Your task to perform on an android device: Go to battery settings Image 0: 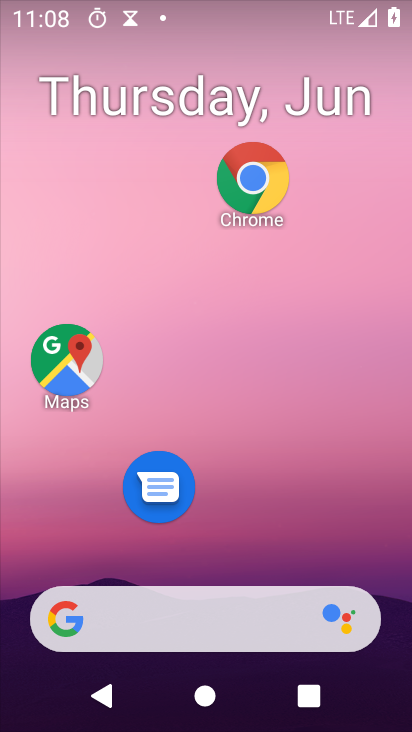
Step 0: drag from (232, 726) to (204, 137)
Your task to perform on an android device: Go to battery settings Image 1: 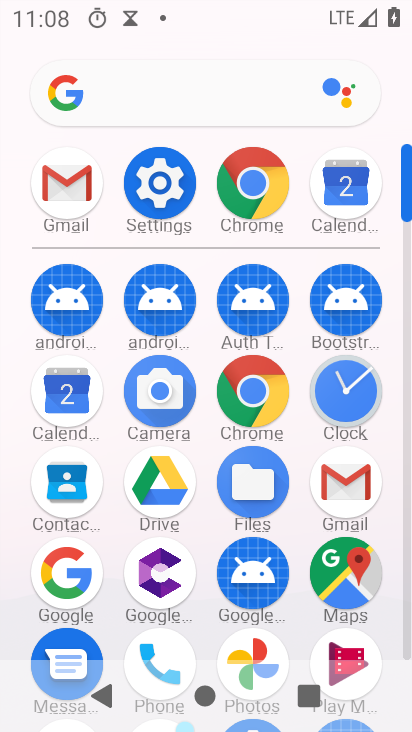
Step 1: click (159, 187)
Your task to perform on an android device: Go to battery settings Image 2: 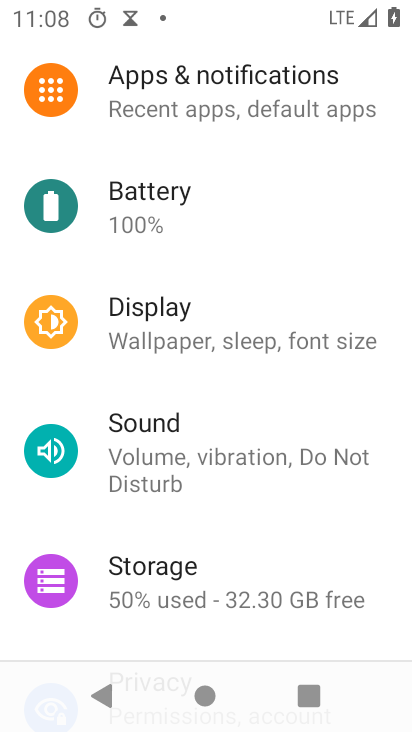
Step 2: click (145, 213)
Your task to perform on an android device: Go to battery settings Image 3: 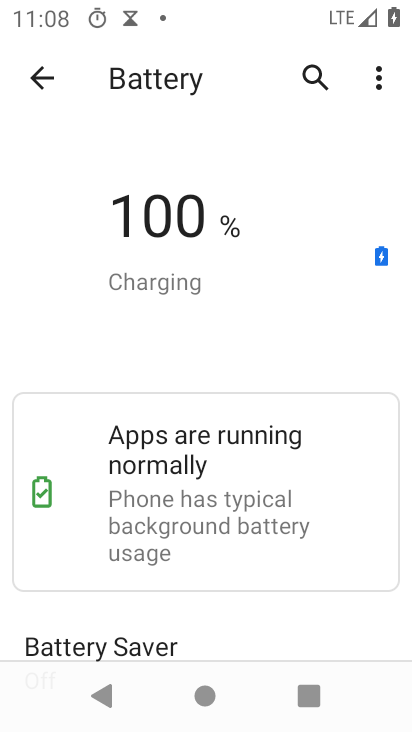
Step 3: task complete